Your task to perform on an android device: set the stopwatch Image 0: 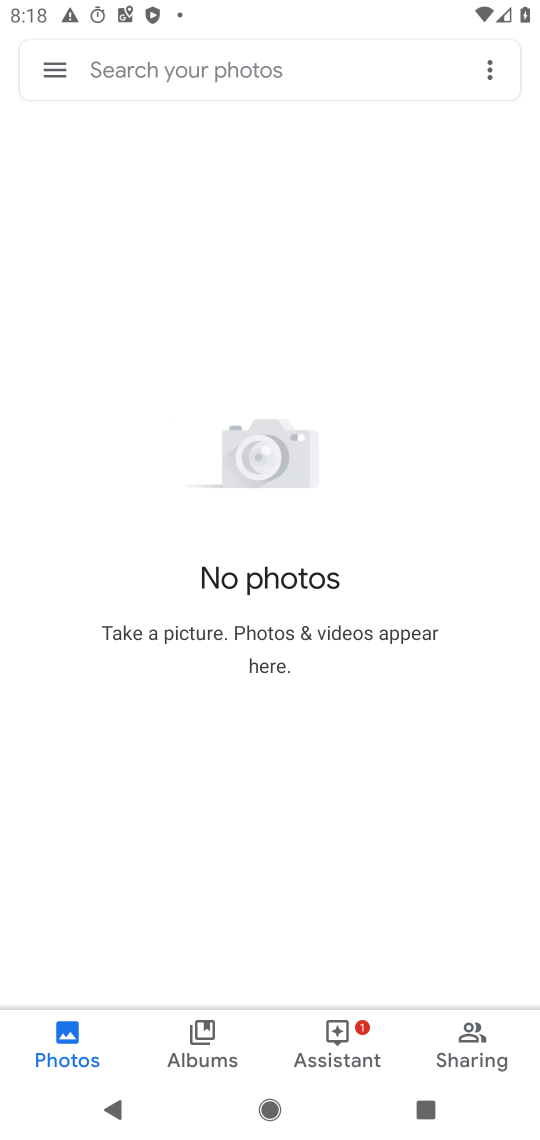
Step 0: press home button
Your task to perform on an android device: set the stopwatch Image 1: 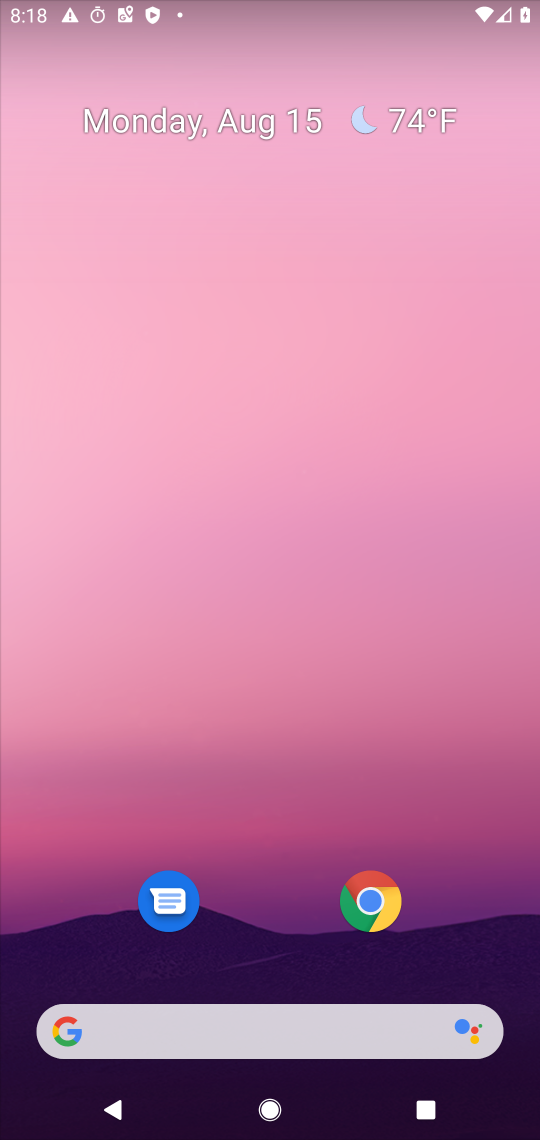
Step 1: drag from (248, 869) to (460, 24)
Your task to perform on an android device: set the stopwatch Image 2: 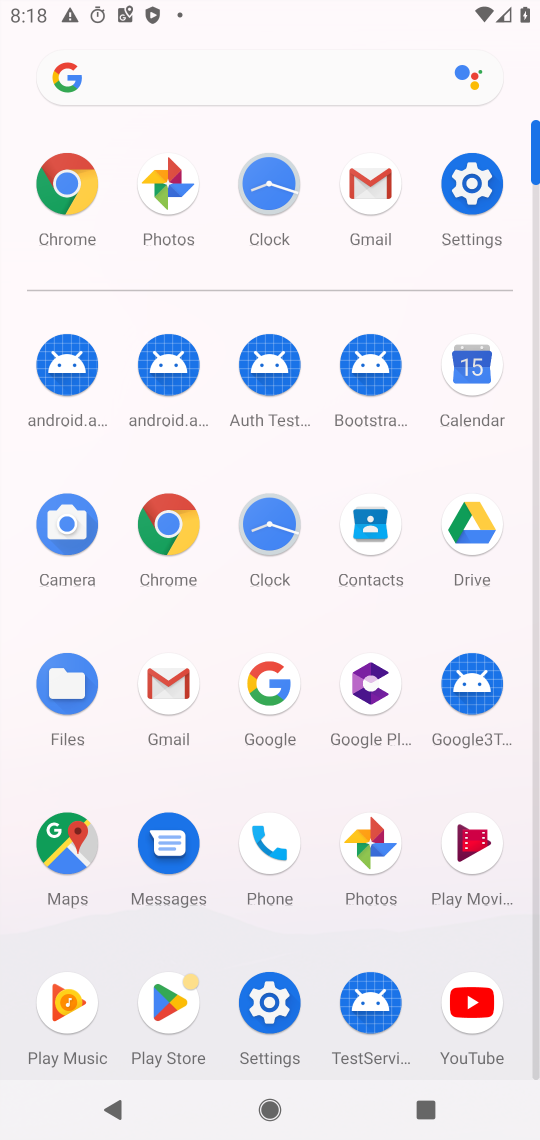
Step 2: click (277, 549)
Your task to perform on an android device: set the stopwatch Image 3: 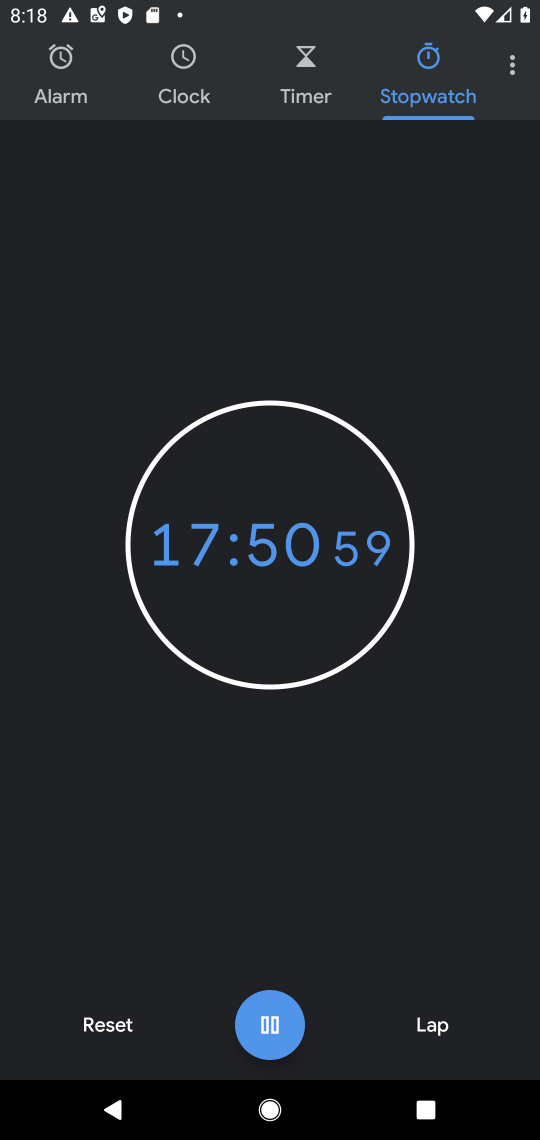
Step 3: click (106, 1046)
Your task to perform on an android device: set the stopwatch Image 4: 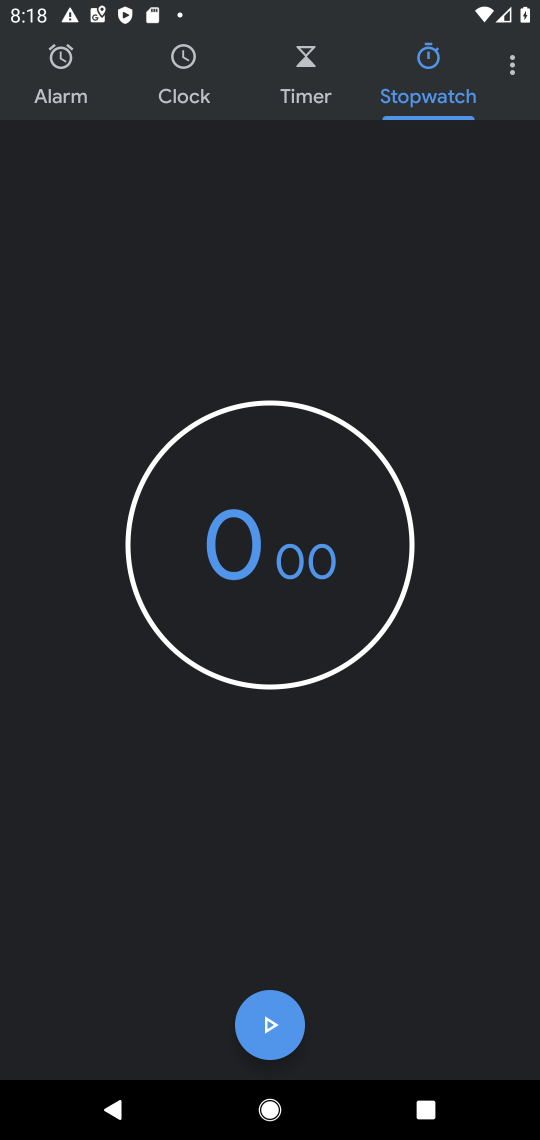
Step 4: click (268, 1022)
Your task to perform on an android device: set the stopwatch Image 5: 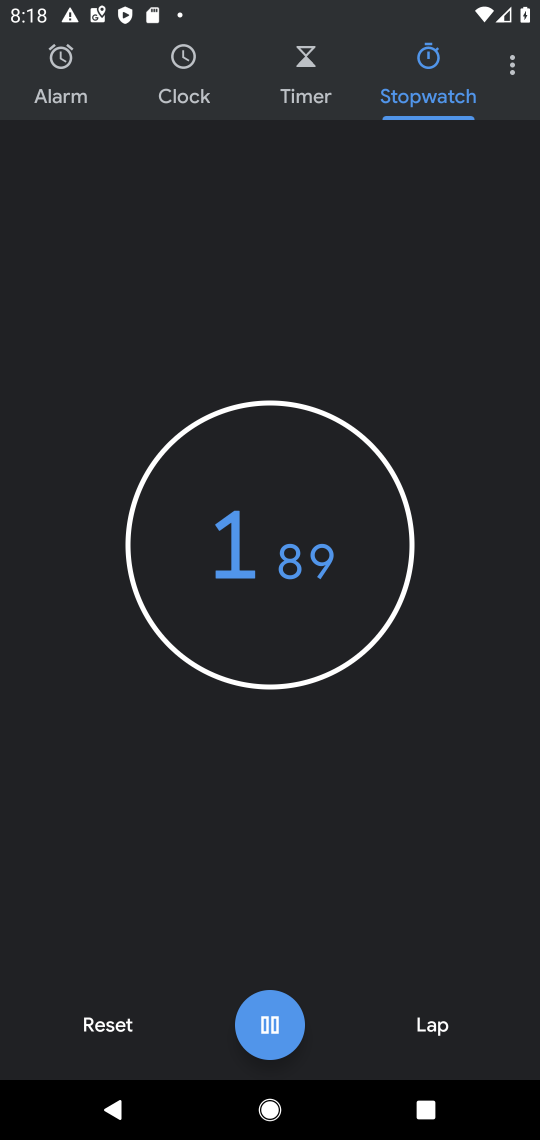
Step 5: task complete